Your task to perform on an android device: Open Google Maps Image 0: 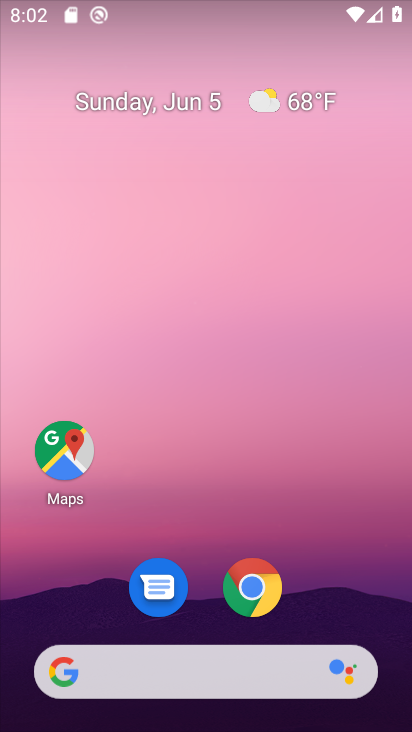
Step 0: drag from (200, 548) to (193, 232)
Your task to perform on an android device: Open Google Maps Image 1: 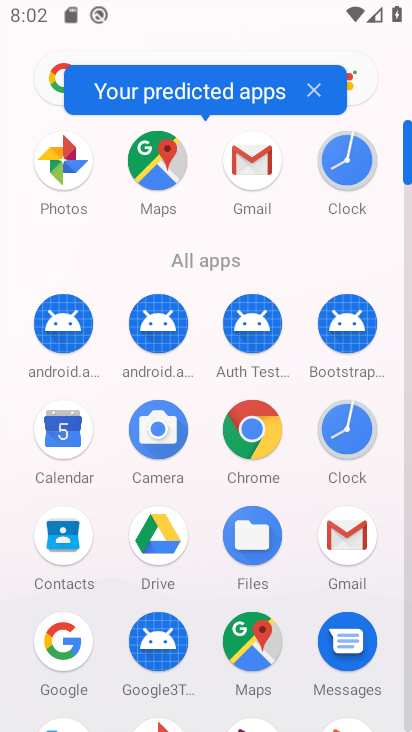
Step 1: drag from (206, 444) to (214, 198)
Your task to perform on an android device: Open Google Maps Image 2: 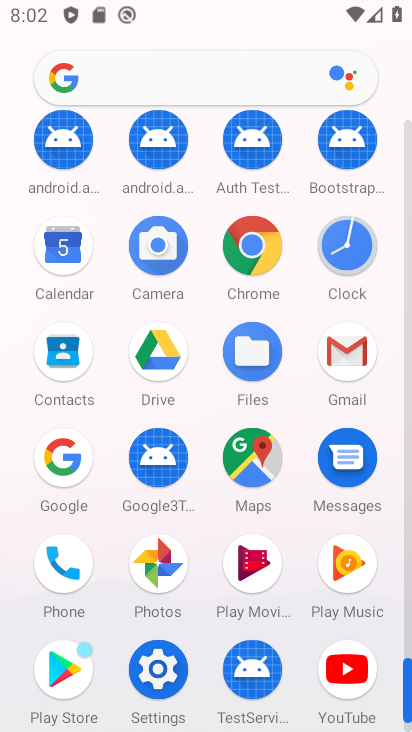
Step 2: click (258, 493)
Your task to perform on an android device: Open Google Maps Image 3: 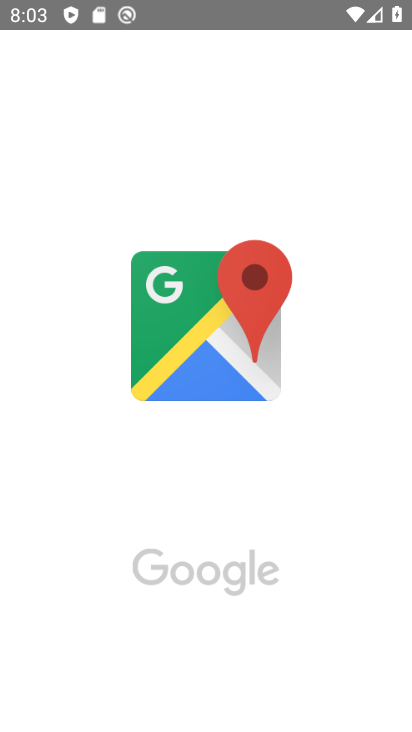
Step 3: task complete